Your task to perform on an android device: toggle wifi Image 0: 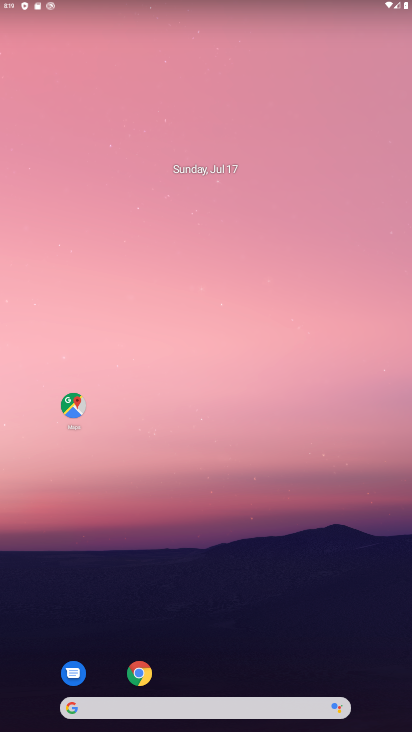
Step 0: drag from (106, 3) to (101, 316)
Your task to perform on an android device: toggle wifi Image 1: 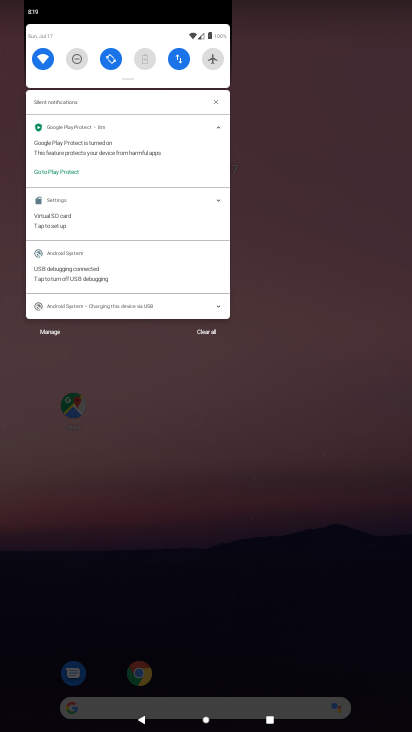
Step 1: click (45, 64)
Your task to perform on an android device: toggle wifi Image 2: 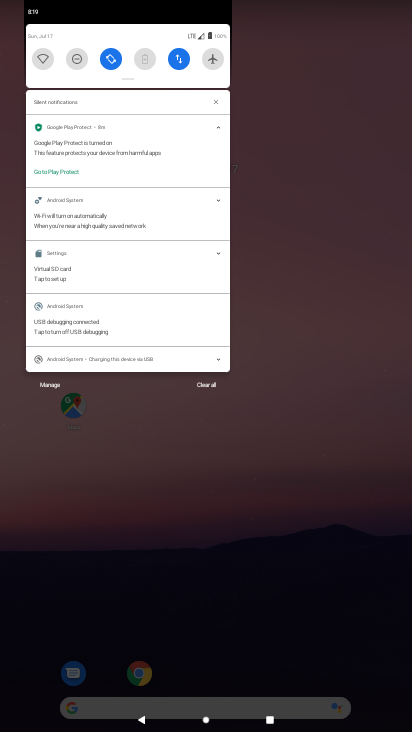
Step 2: task complete